Your task to perform on an android device: add a label to a message in the gmail app Image 0: 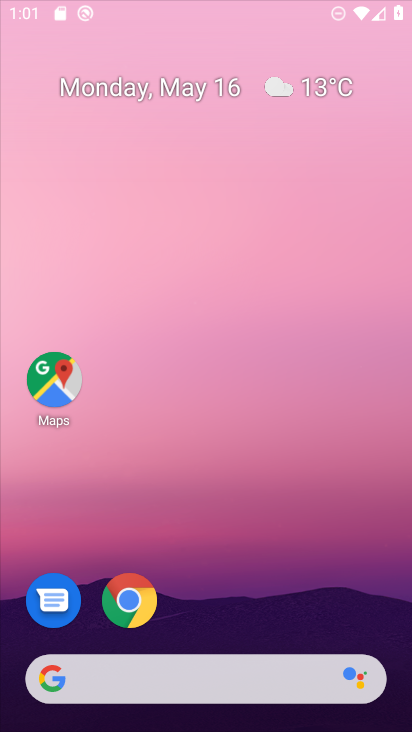
Step 0: press home button
Your task to perform on an android device: add a label to a message in the gmail app Image 1: 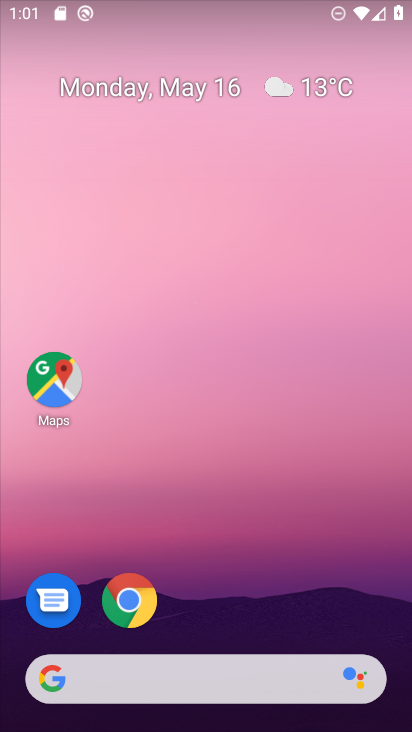
Step 1: drag from (213, 630) to (217, 12)
Your task to perform on an android device: add a label to a message in the gmail app Image 2: 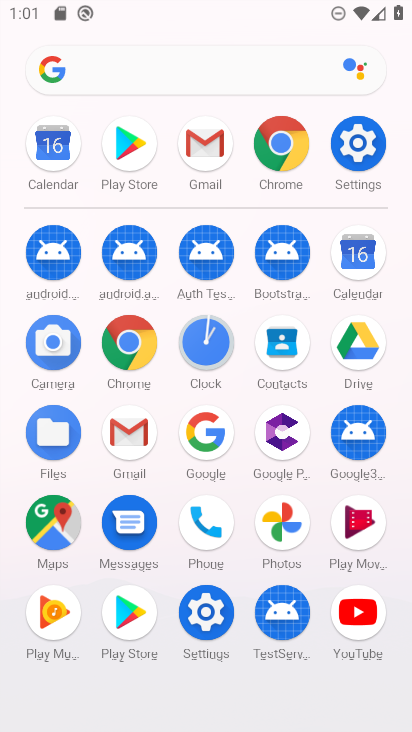
Step 2: click (202, 133)
Your task to perform on an android device: add a label to a message in the gmail app Image 3: 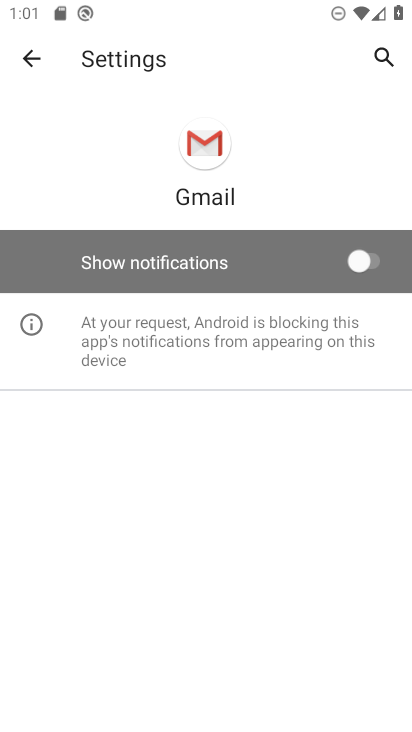
Step 3: click (25, 54)
Your task to perform on an android device: add a label to a message in the gmail app Image 4: 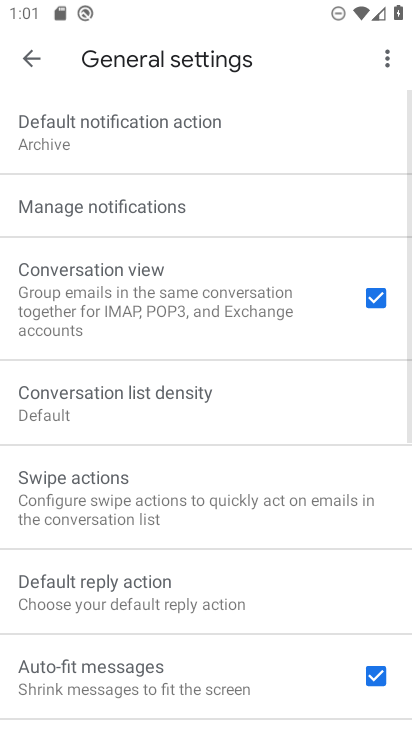
Step 4: click (33, 61)
Your task to perform on an android device: add a label to a message in the gmail app Image 5: 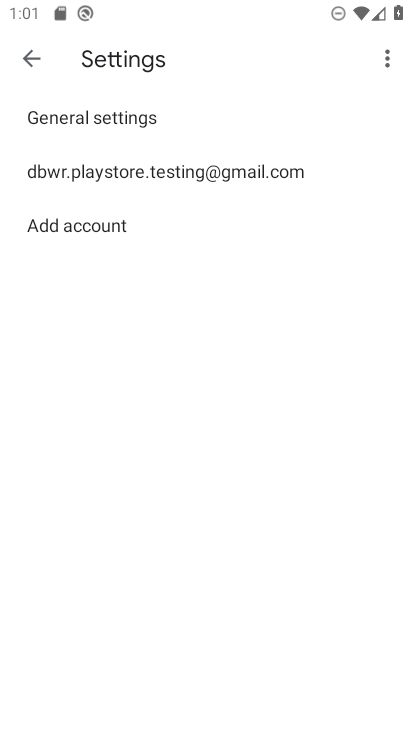
Step 5: click (38, 62)
Your task to perform on an android device: add a label to a message in the gmail app Image 6: 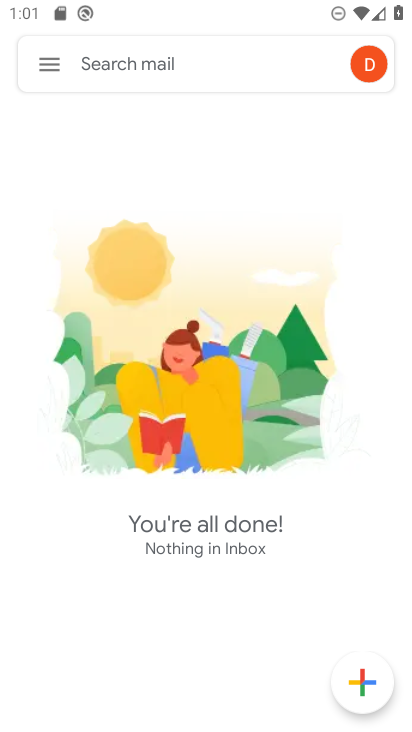
Step 6: task complete